Your task to perform on an android device: set the timer Image 0: 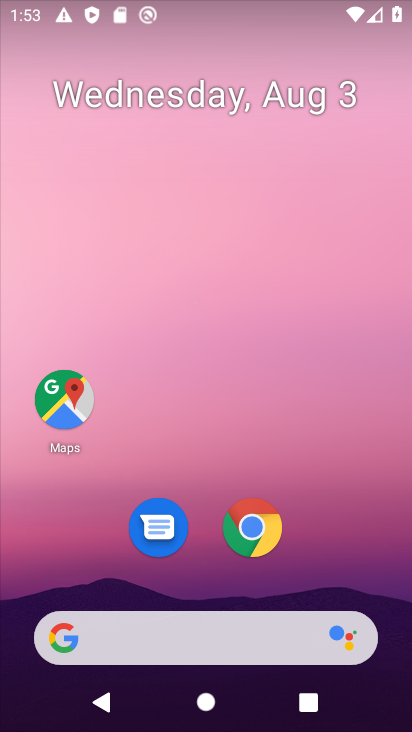
Step 0: drag from (199, 551) to (42, 0)
Your task to perform on an android device: set the timer Image 1: 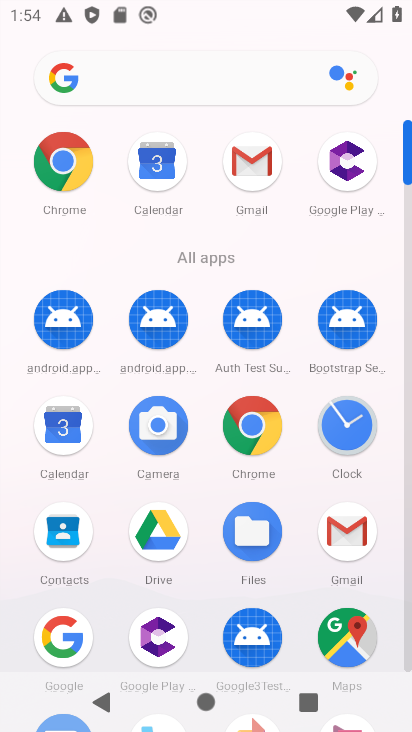
Step 1: click (349, 448)
Your task to perform on an android device: set the timer Image 2: 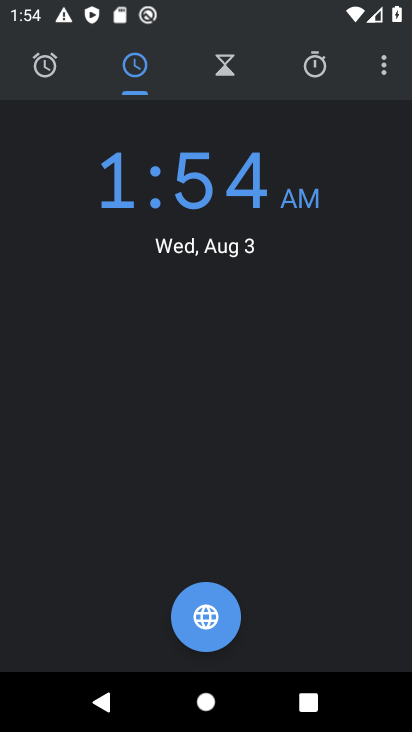
Step 2: click (382, 66)
Your task to perform on an android device: set the timer Image 3: 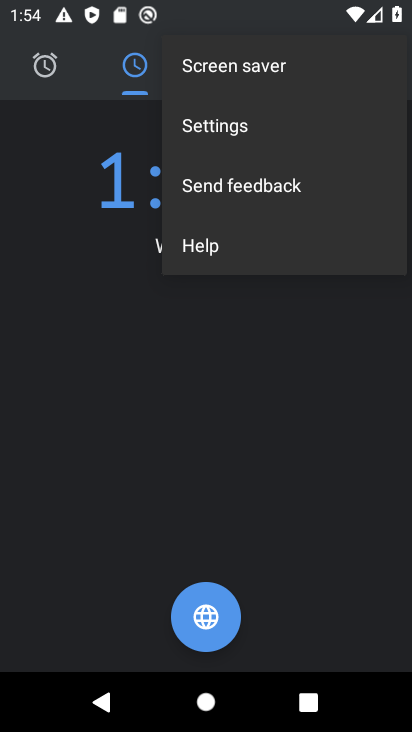
Step 3: click (111, 357)
Your task to perform on an android device: set the timer Image 4: 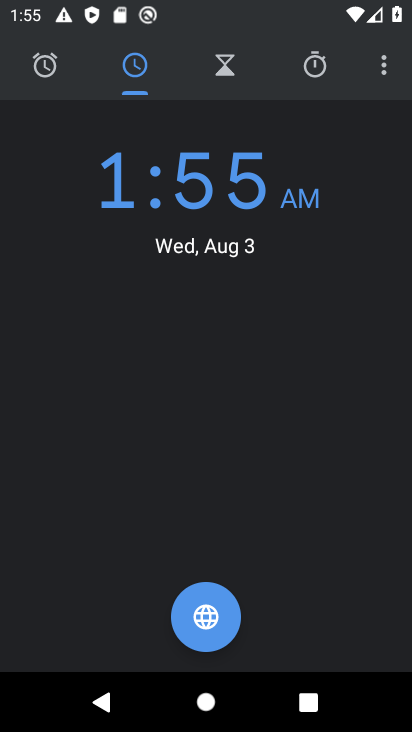
Step 4: click (229, 72)
Your task to perform on an android device: set the timer Image 5: 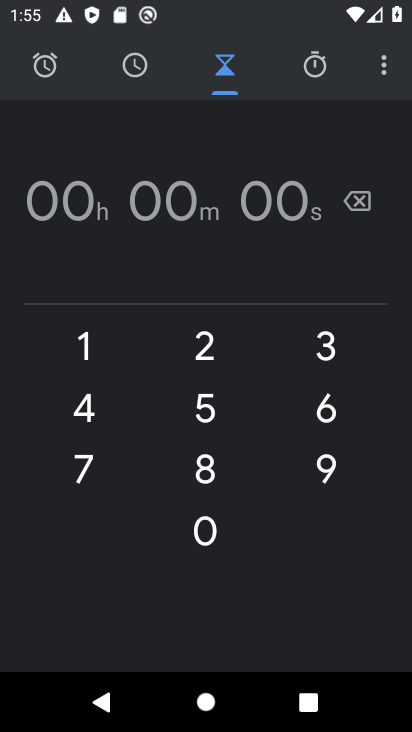
Step 5: click (209, 337)
Your task to perform on an android device: set the timer Image 6: 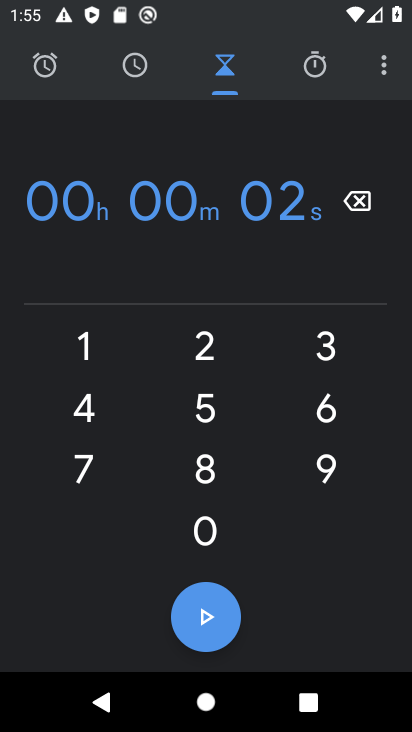
Step 6: click (207, 502)
Your task to perform on an android device: set the timer Image 7: 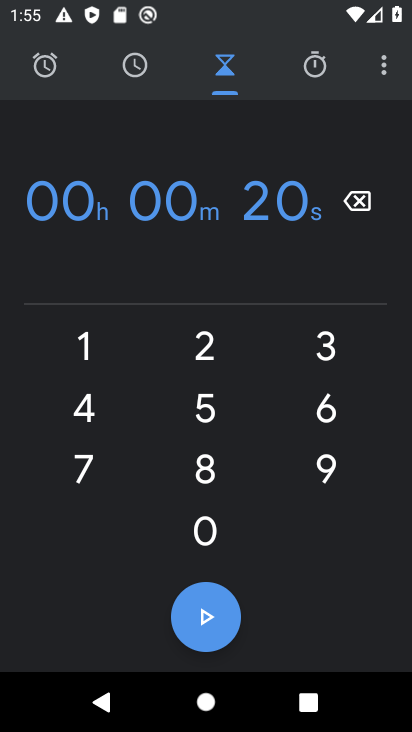
Step 7: click (199, 531)
Your task to perform on an android device: set the timer Image 8: 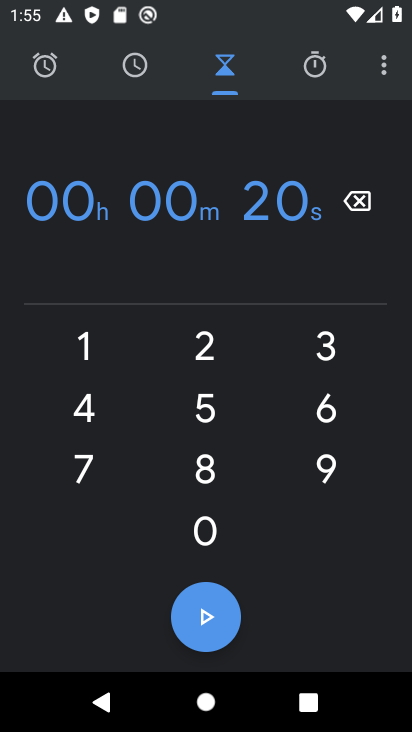
Step 8: click (199, 531)
Your task to perform on an android device: set the timer Image 9: 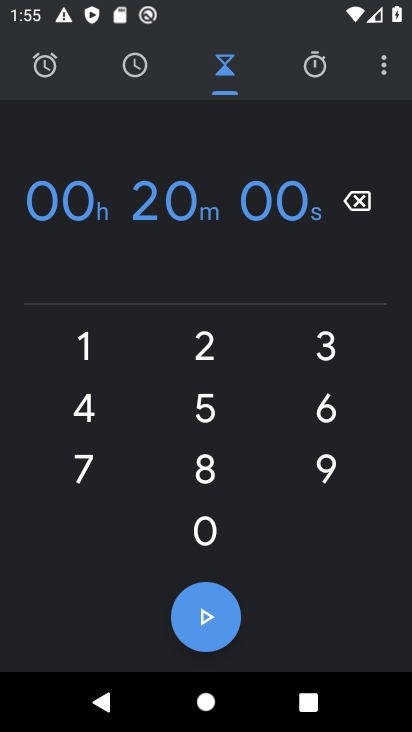
Step 9: click (206, 600)
Your task to perform on an android device: set the timer Image 10: 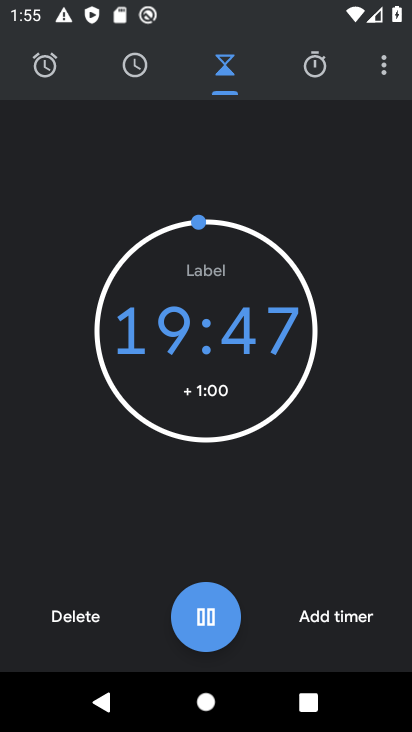
Step 10: task complete